Your task to perform on an android device: turn off translation in the chrome app Image 0: 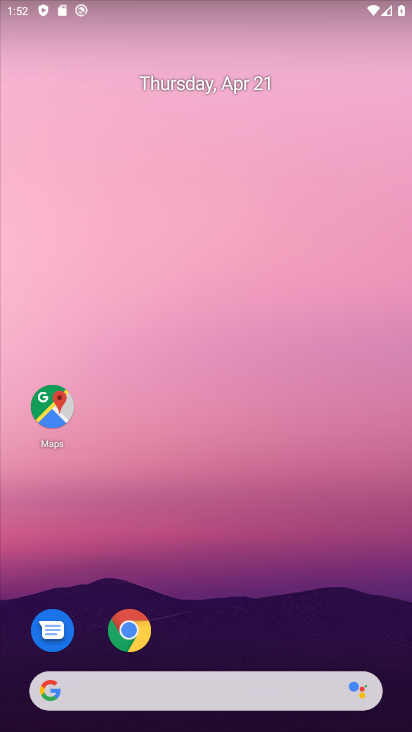
Step 0: click (141, 631)
Your task to perform on an android device: turn off translation in the chrome app Image 1: 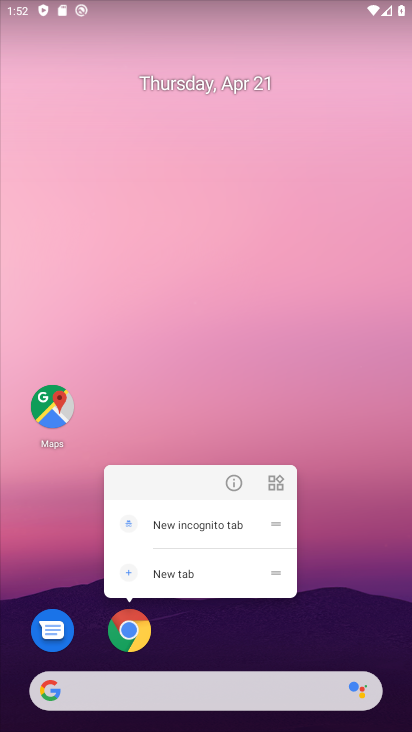
Step 1: click (127, 622)
Your task to perform on an android device: turn off translation in the chrome app Image 2: 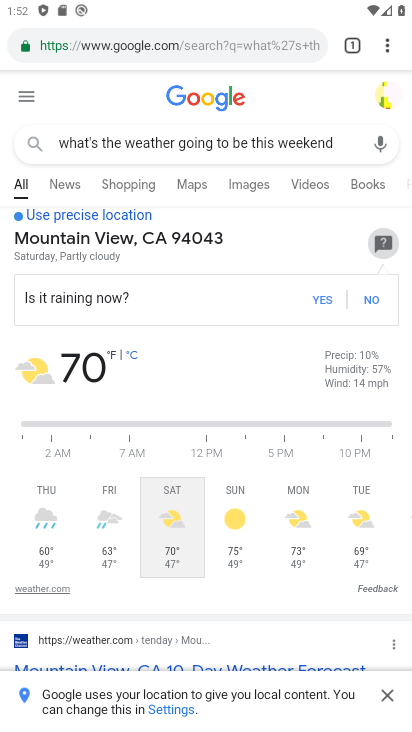
Step 2: drag from (391, 43) to (250, 506)
Your task to perform on an android device: turn off translation in the chrome app Image 3: 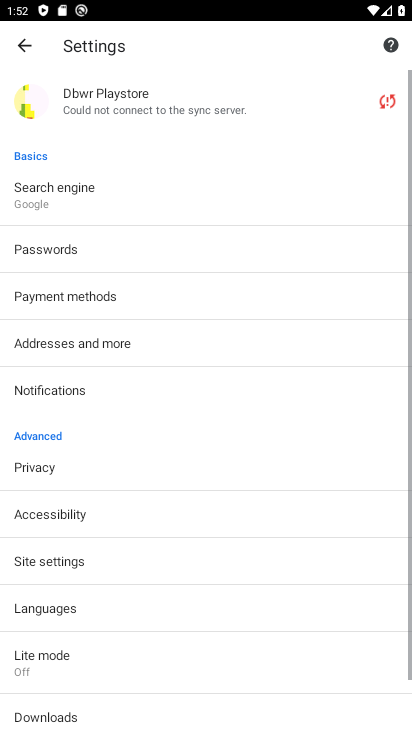
Step 3: drag from (129, 680) to (155, 377)
Your task to perform on an android device: turn off translation in the chrome app Image 4: 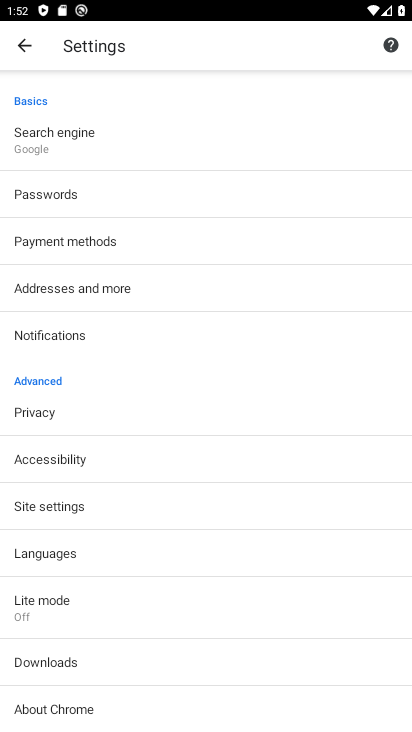
Step 4: click (76, 554)
Your task to perform on an android device: turn off translation in the chrome app Image 5: 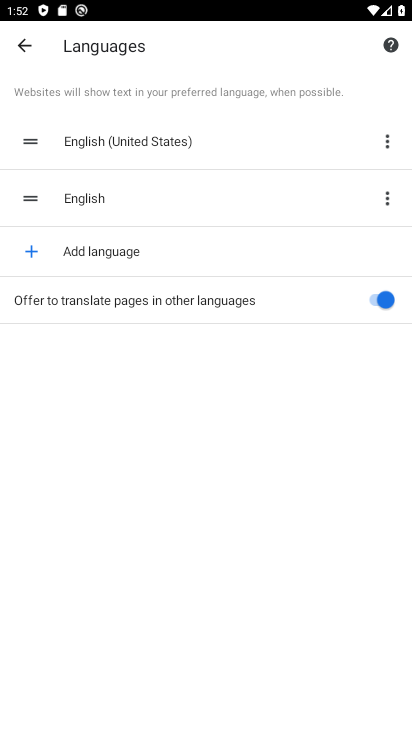
Step 5: click (383, 306)
Your task to perform on an android device: turn off translation in the chrome app Image 6: 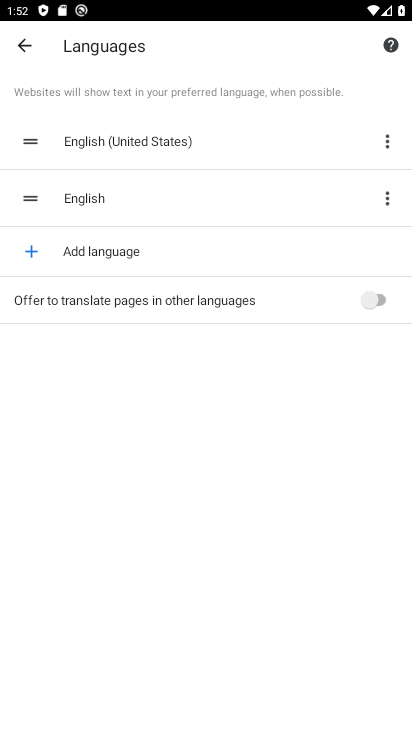
Step 6: task complete